Your task to perform on an android device: When is my next appointment? Image 0: 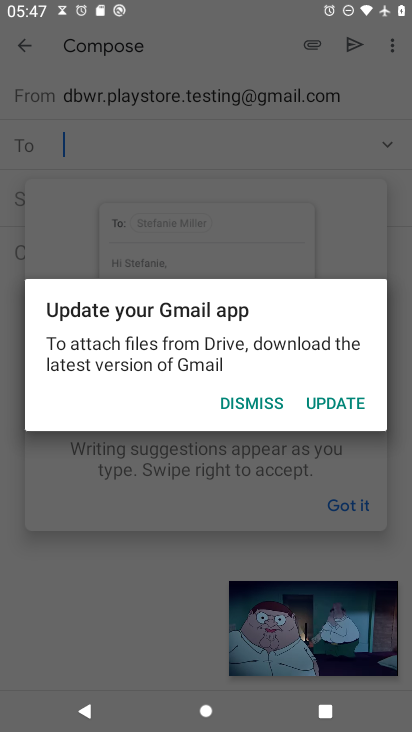
Step 0: press back button
Your task to perform on an android device: When is my next appointment? Image 1: 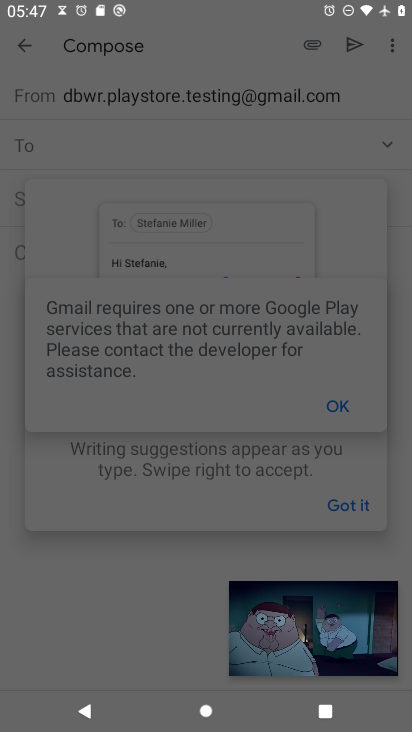
Step 1: press home button
Your task to perform on an android device: When is my next appointment? Image 2: 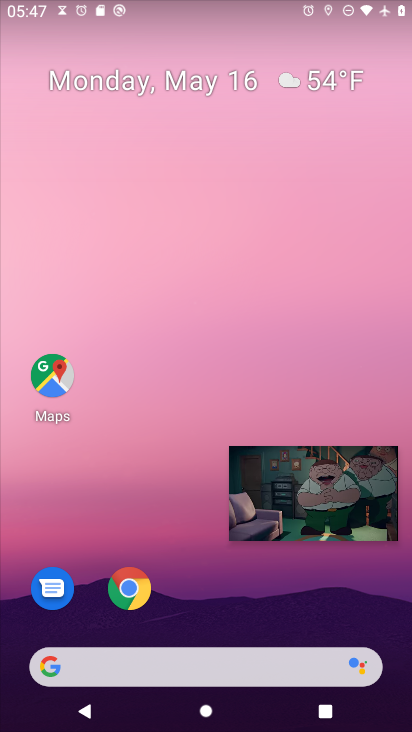
Step 2: click (370, 454)
Your task to perform on an android device: When is my next appointment? Image 3: 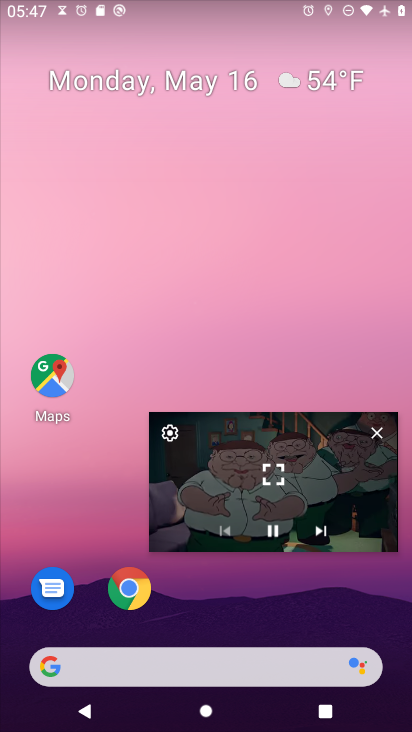
Step 3: click (378, 435)
Your task to perform on an android device: When is my next appointment? Image 4: 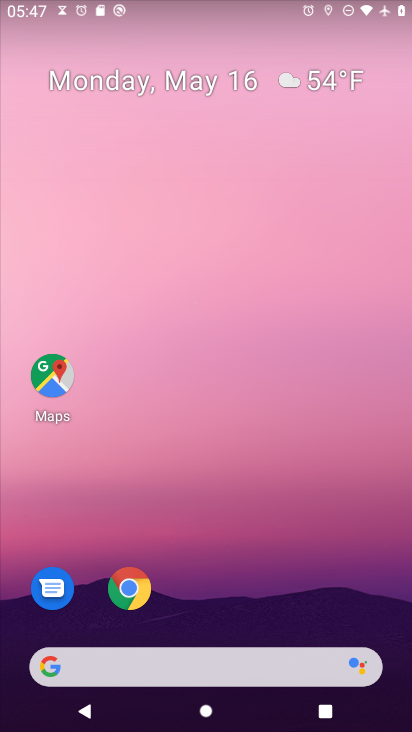
Step 4: drag from (345, 549) to (287, 2)
Your task to perform on an android device: When is my next appointment? Image 5: 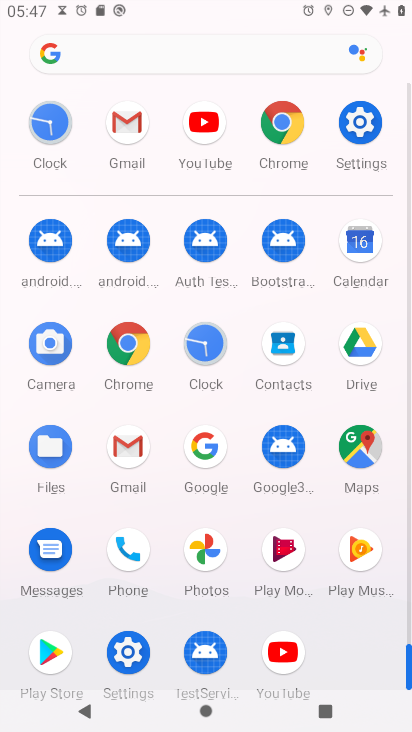
Step 5: drag from (0, 518) to (8, 189)
Your task to perform on an android device: When is my next appointment? Image 6: 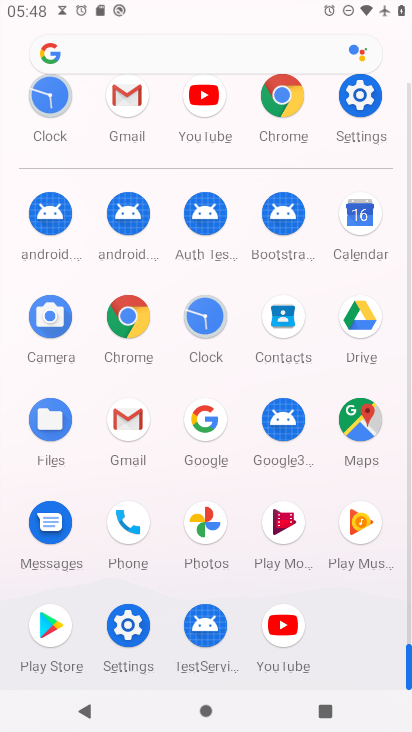
Step 6: click (365, 215)
Your task to perform on an android device: When is my next appointment? Image 7: 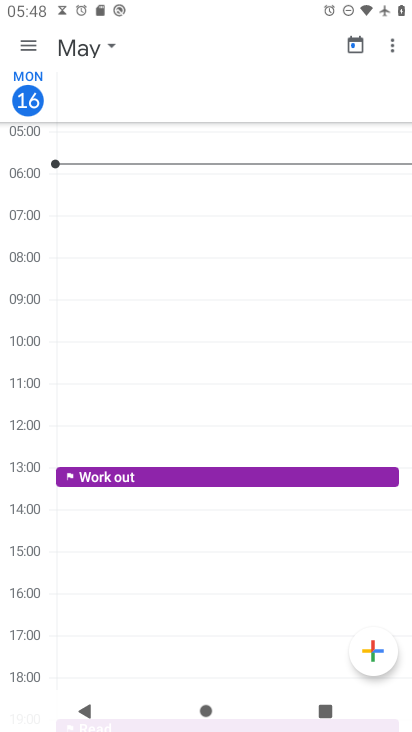
Step 7: click (30, 36)
Your task to perform on an android device: When is my next appointment? Image 8: 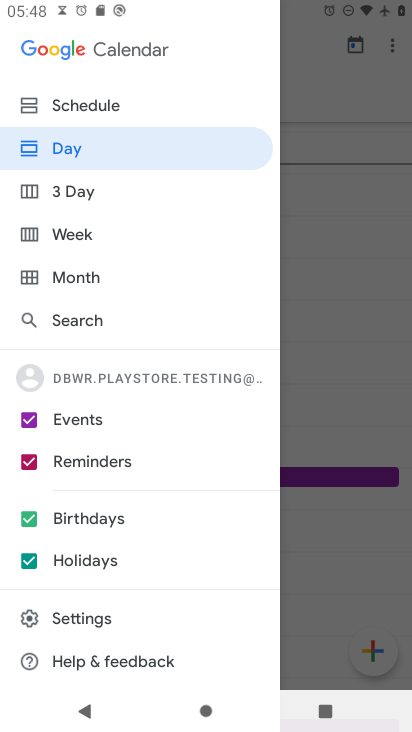
Step 8: click (78, 103)
Your task to perform on an android device: When is my next appointment? Image 9: 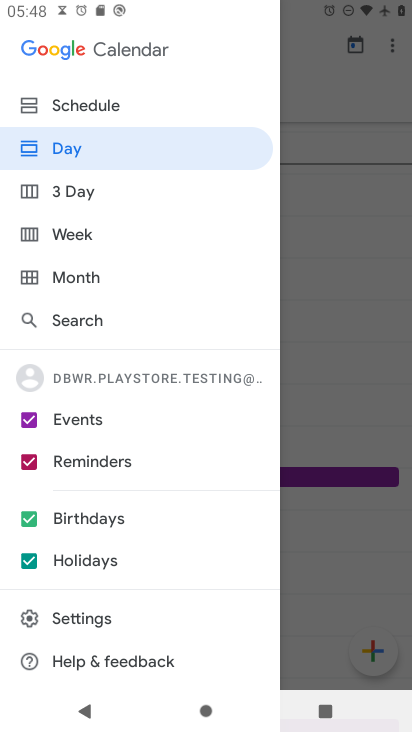
Step 9: click (80, 106)
Your task to perform on an android device: When is my next appointment? Image 10: 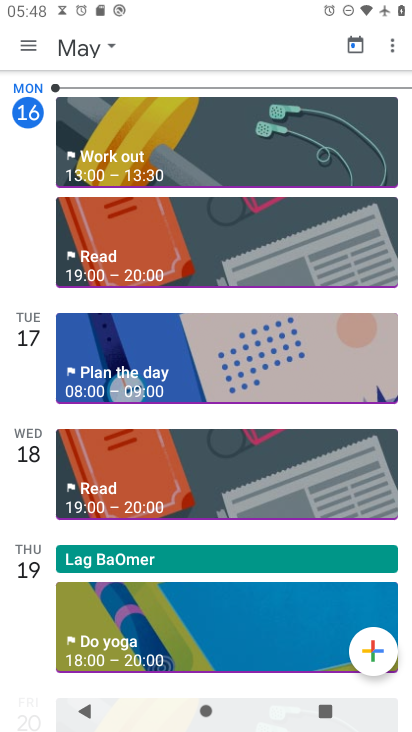
Step 10: task complete